Your task to perform on an android device: open app "Microsoft Excel" (install if not already installed) Image 0: 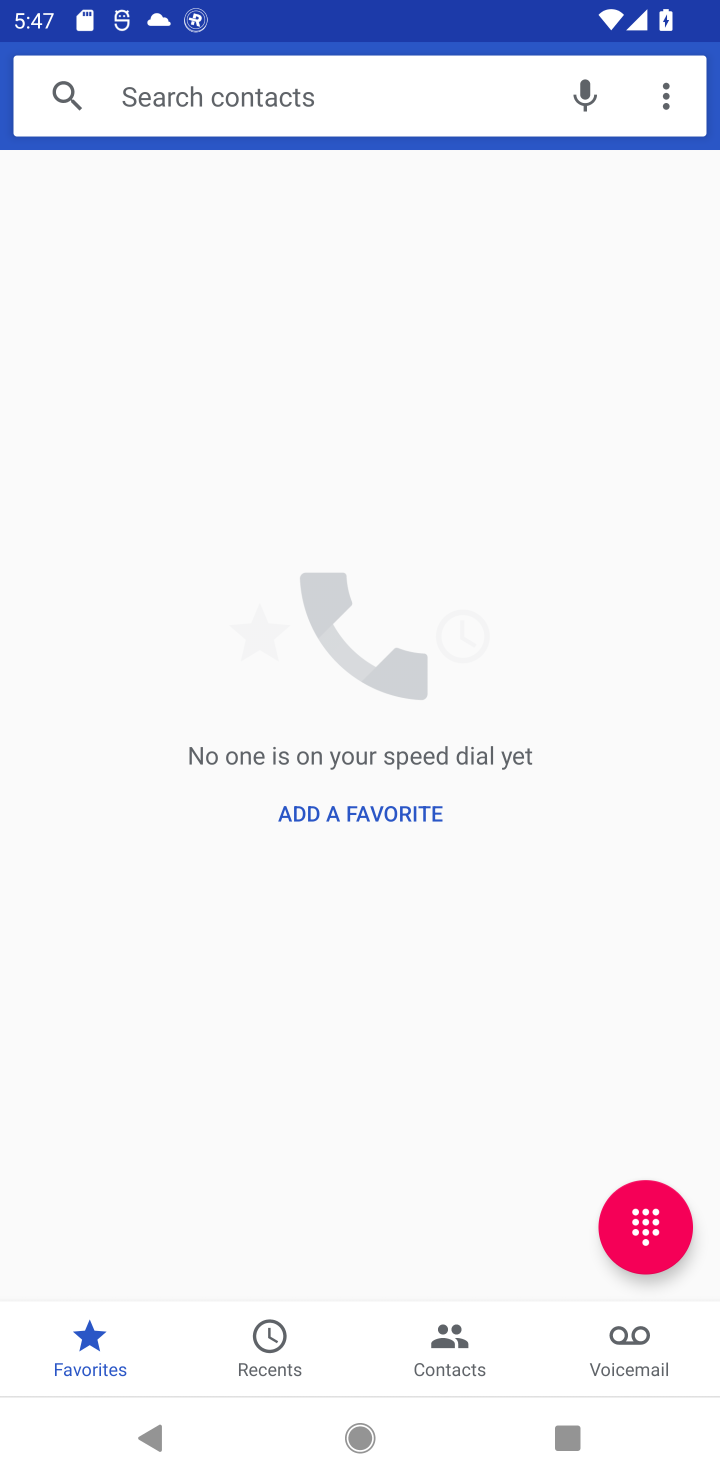
Step 0: task complete